Your task to perform on an android device: Open display settings Image 0: 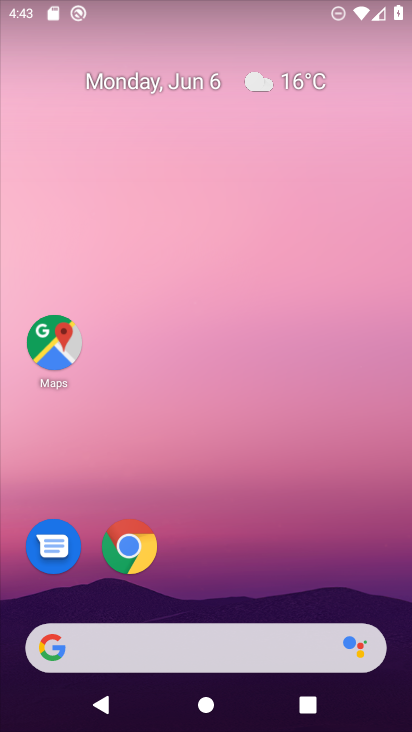
Step 0: drag from (226, 612) to (243, 29)
Your task to perform on an android device: Open display settings Image 1: 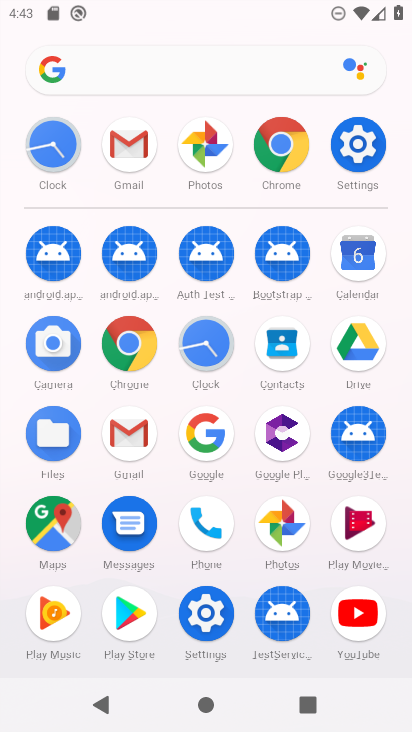
Step 1: click (350, 154)
Your task to perform on an android device: Open display settings Image 2: 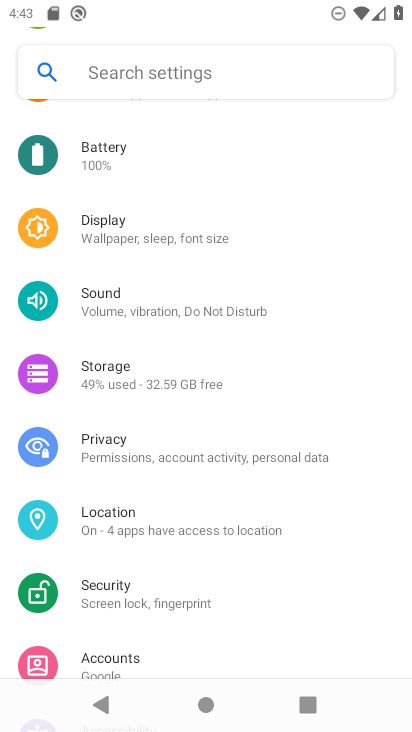
Step 2: click (110, 251)
Your task to perform on an android device: Open display settings Image 3: 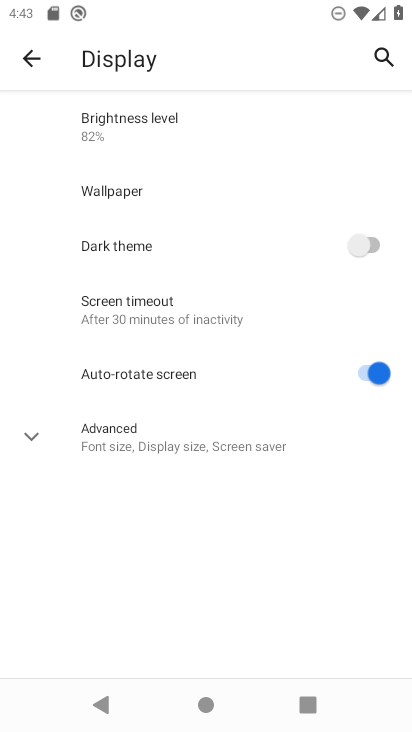
Step 3: click (228, 425)
Your task to perform on an android device: Open display settings Image 4: 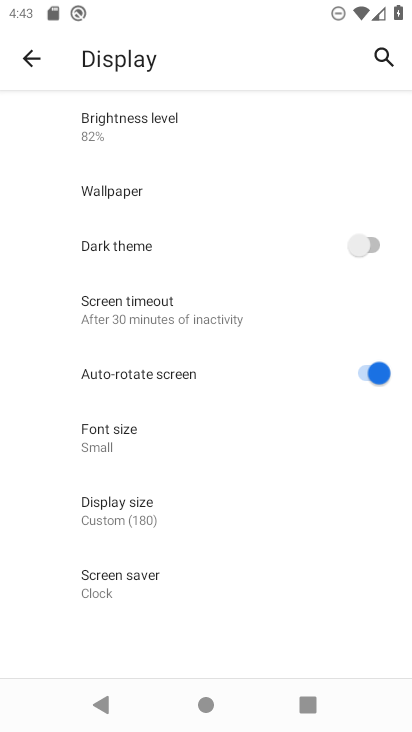
Step 4: task complete